Your task to perform on an android device: Go to location settings Image 0: 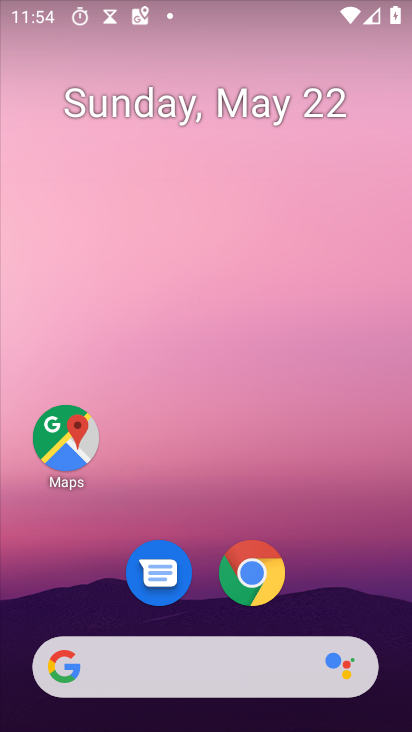
Step 0: drag from (202, 665) to (336, 130)
Your task to perform on an android device: Go to location settings Image 1: 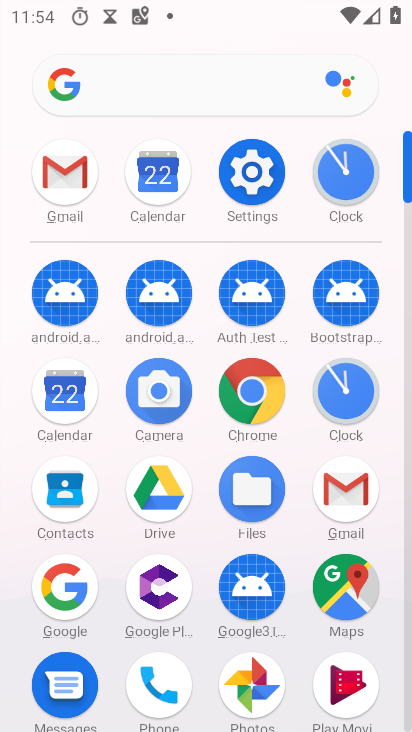
Step 1: click (255, 186)
Your task to perform on an android device: Go to location settings Image 2: 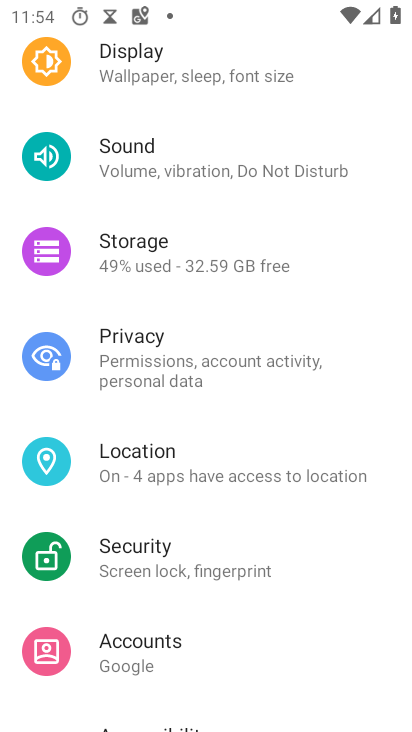
Step 2: click (184, 456)
Your task to perform on an android device: Go to location settings Image 3: 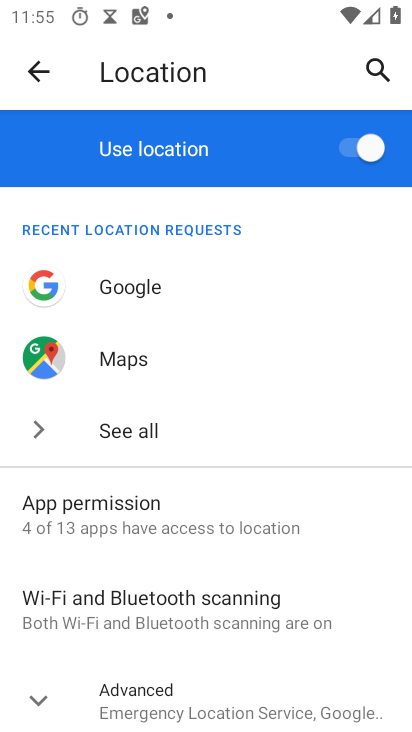
Step 3: task complete